Your task to perform on an android device: delete a single message in the gmail app Image 0: 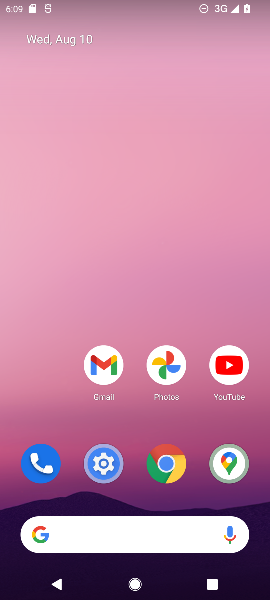
Step 0: click (97, 369)
Your task to perform on an android device: delete a single message in the gmail app Image 1: 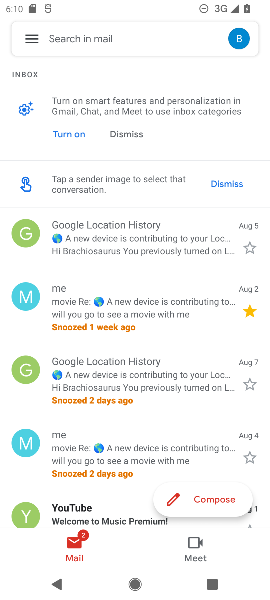
Step 1: click (95, 226)
Your task to perform on an android device: delete a single message in the gmail app Image 2: 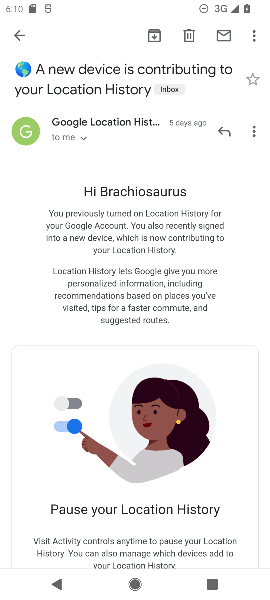
Step 2: click (191, 35)
Your task to perform on an android device: delete a single message in the gmail app Image 3: 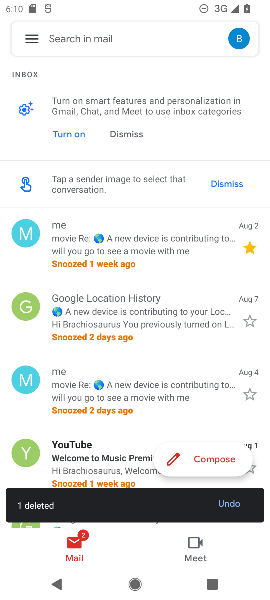
Step 3: task complete